Your task to perform on an android device: turn off improve location accuracy Image 0: 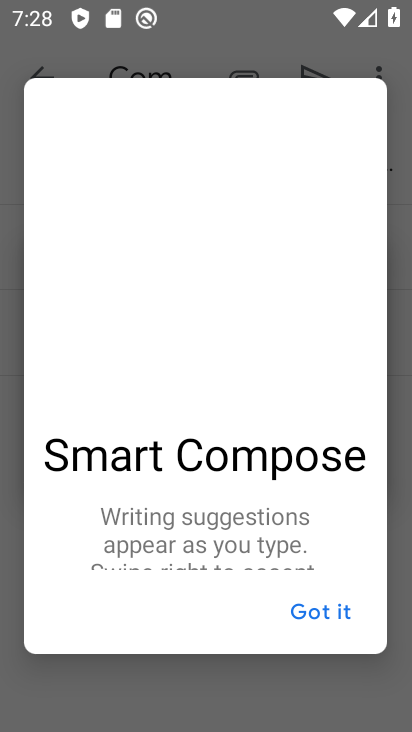
Step 0: press home button
Your task to perform on an android device: turn off improve location accuracy Image 1: 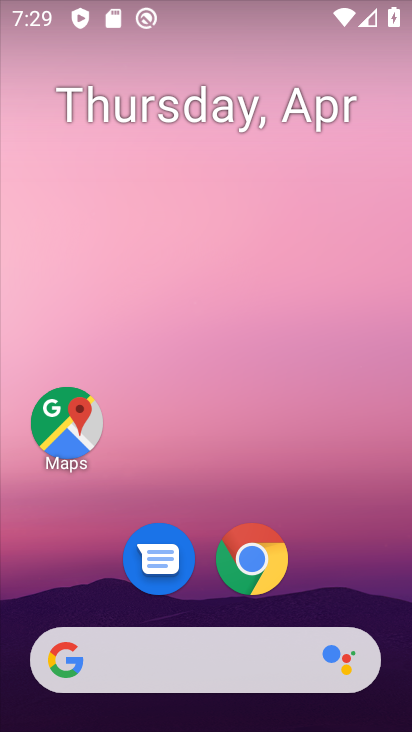
Step 1: drag from (220, 723) to (326, 23)
Your task to perform on an android device: turn off improve location accuracy Image 2: 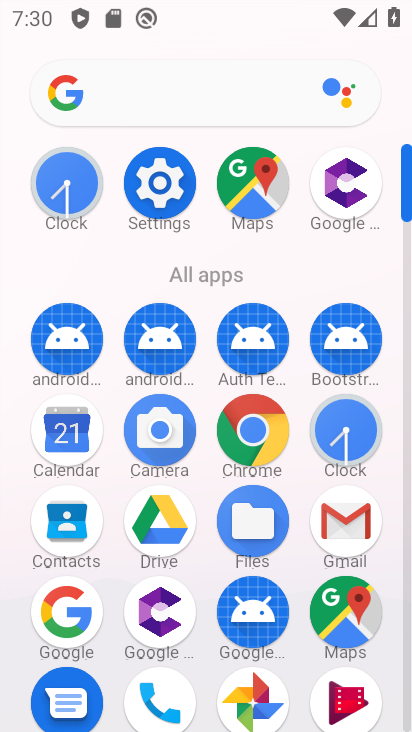
Step 2: click (253, 177)
Your task to perform on an android device: turn off improve location accuracy Image 3: 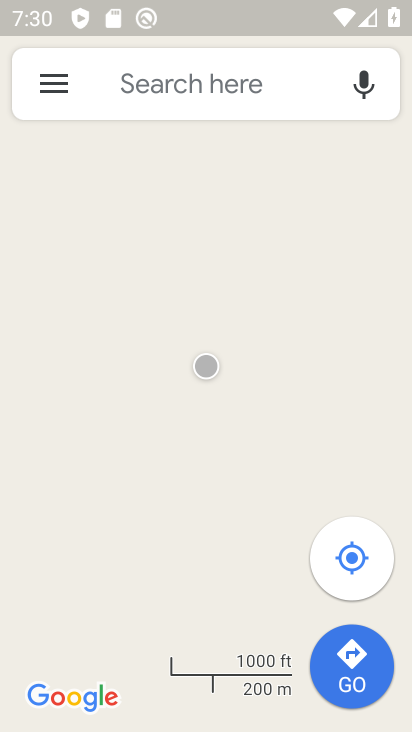
Step 3: click (58, 85)
Your task to perform on an android device: turn off improve location accuracy Image 4: 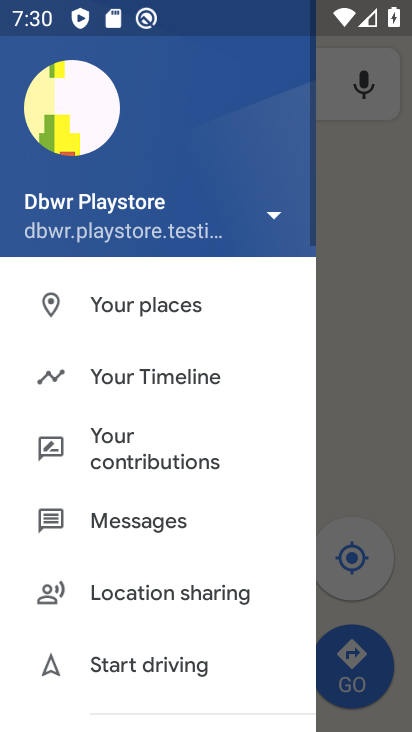
Step 4: drag from (238, 606) to (275, 108)
Your task to perform on an android device: turn off improve location accuracy Image 5: 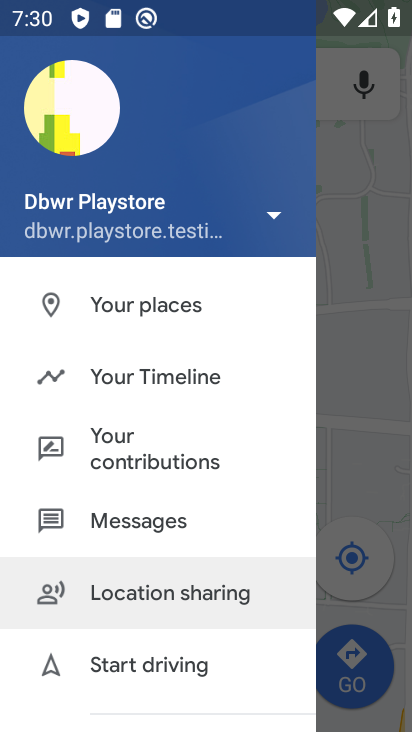
Step 5: drag from (239, 643) to (209, 23)
Your task to perform on an android device: turn off improve location accuracy Image 6: 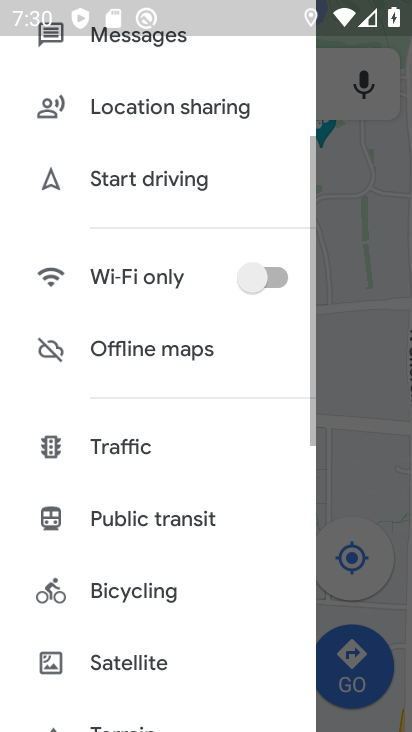
Step 6: drag from (172, 413) to (196, 55)
Your task to perform on an android device: turn off improve location accuracy Image 7: 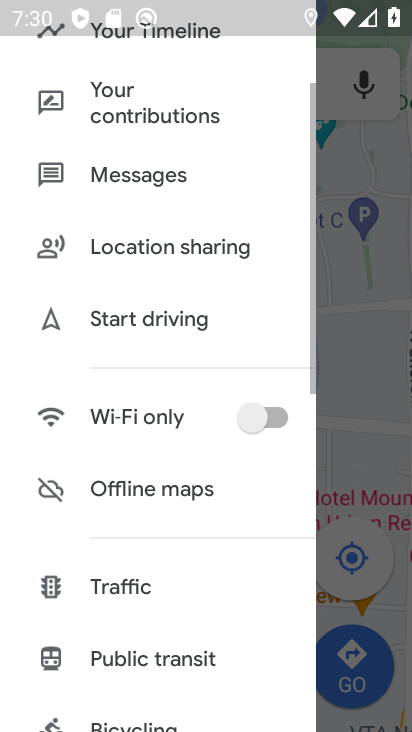
Step 7: drag from (236, 651) to (160, 106)
Your task to perform on an android device: turn off improve location accuracy Image 8: 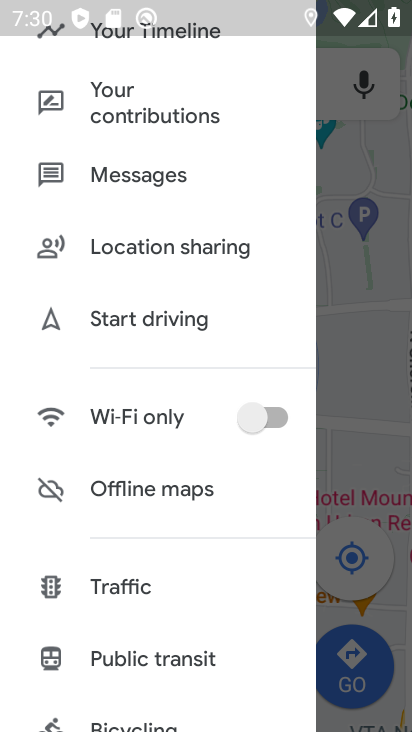
Step 8: drag from (245, 597) to (240, 0)
Your task to perform on an android device: turn off improve location accuracy Image 9: 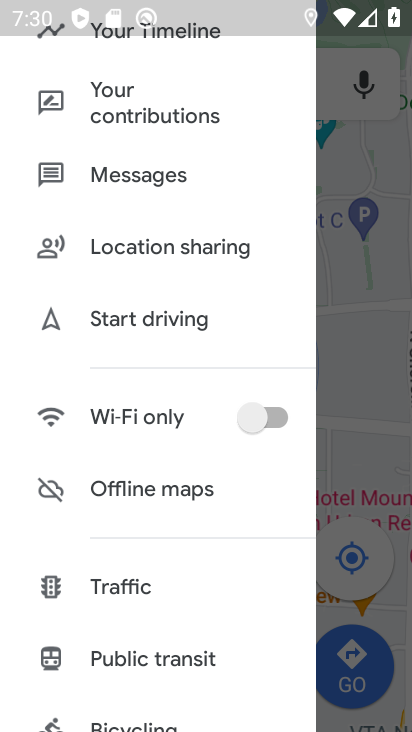
Step 9: drag from (248, 600) to (218, 7)
Your task to perform on an android device: turn off improve location accuracy Image 10: 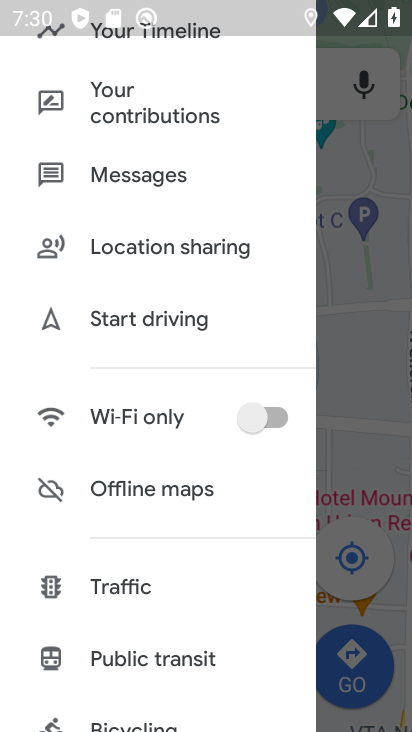
Step 10: drag from (148, 499) to (218, 34)
Your task to perform on an android device: turn off improve location accuracy Image 11: 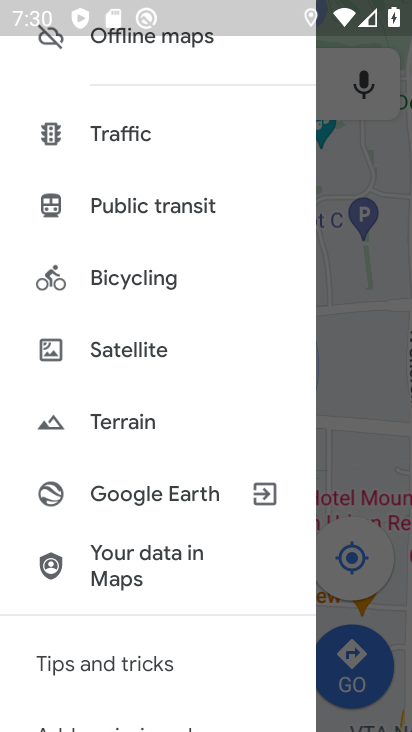
Step 11: drag from (170, 654) to (255, 96)
Your task to perform on an android device: turn off improve location accuracy Image 12: 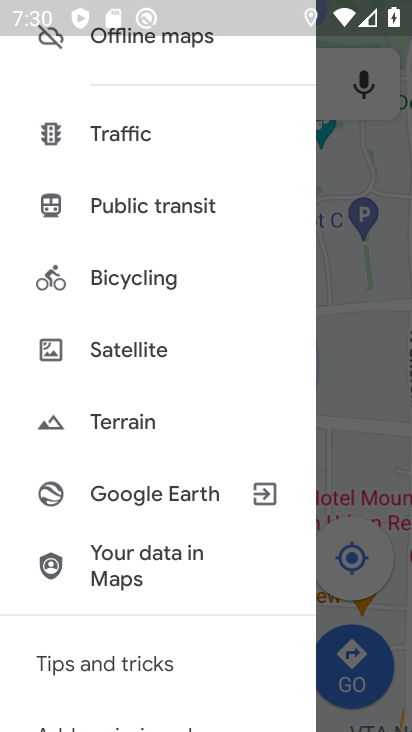
Step 12: drag from (167, 657) to (215, 30)
Your task to perform on an android device: turn off improve location accuracy Image 13: 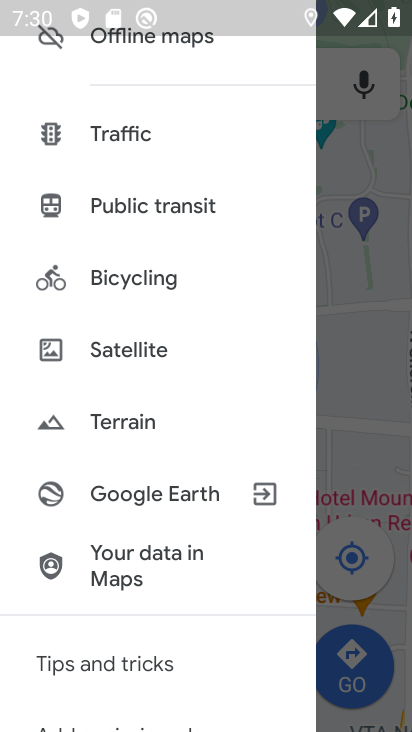
Step 13: drag from (153, 651) to (199, 12)
Your task to perform on an android device: turn off improve location accuracy Image 14: 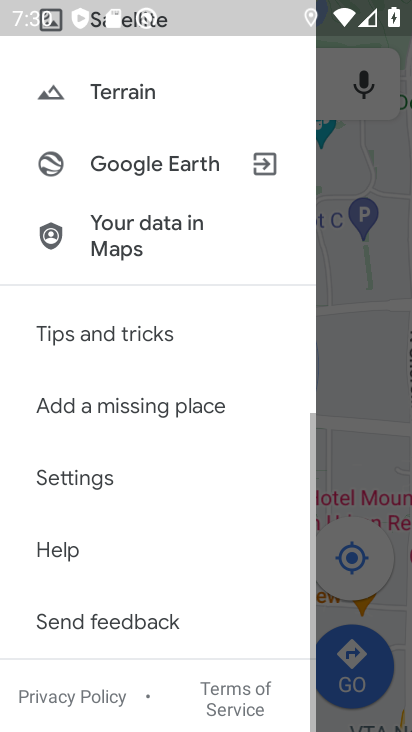
Step 14: click (93, 466)
Your task to perform on an android device: turn off improve location accuracy Image 15: 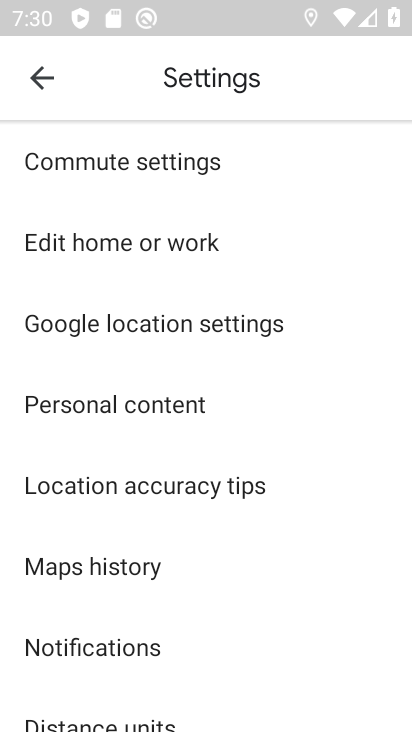
Step 15: click (143, 332)
Your task to perform on an android device: turn off improve location accuracy Image 16: 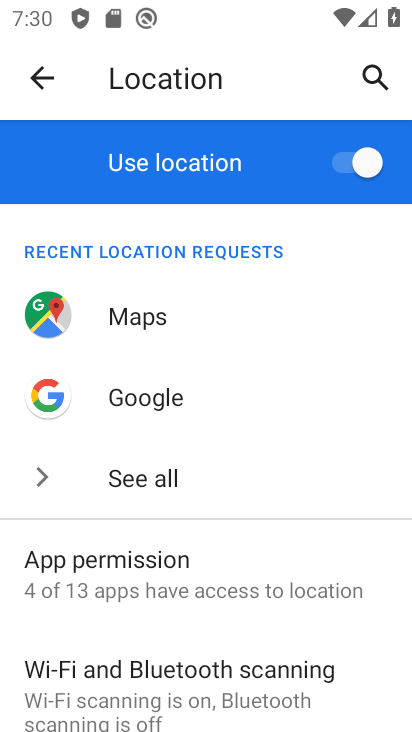
Step 16: drag from (208, 547) to (101, 0)
Your task to perform on an android device: turn off improve location accuracy Image 17: 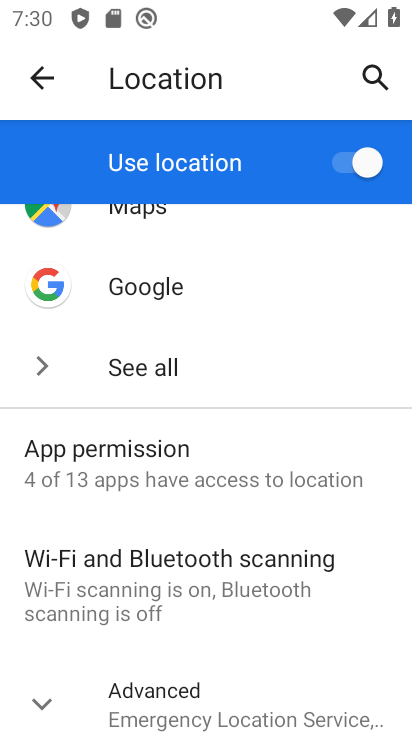
Step 17: click (246, 718)
Your task to perform on an android device: turn off improve location accuracy Image 18: 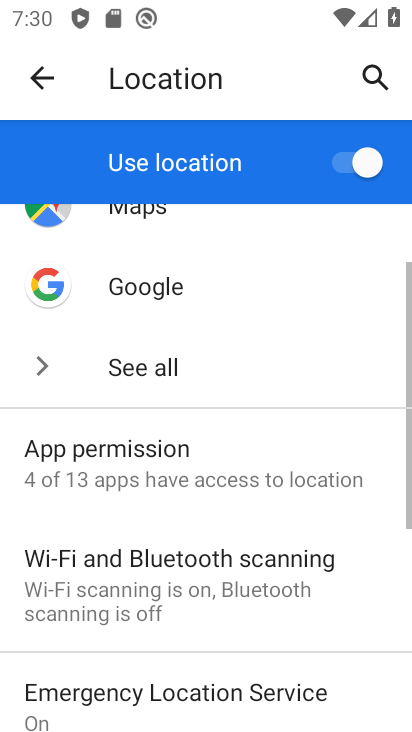
Step 18: drag from (302, 637) to (273, 13)
Your task to perform on an android device: turn off improve location accuracy Image 19: 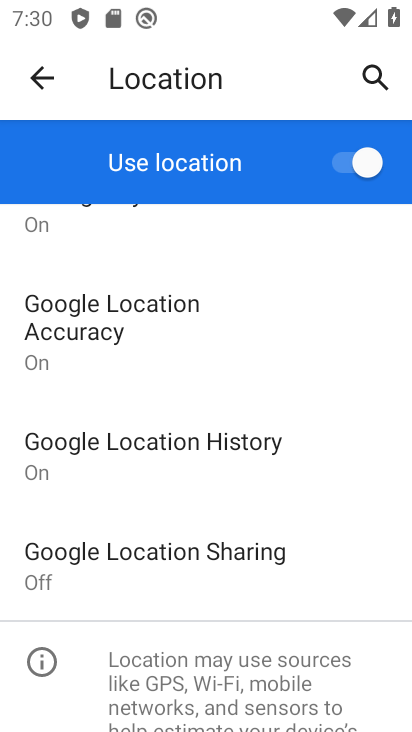
Step 19: click (139, 331)
Your task to perform on an android device: turn off improve location accuracy Image 20: 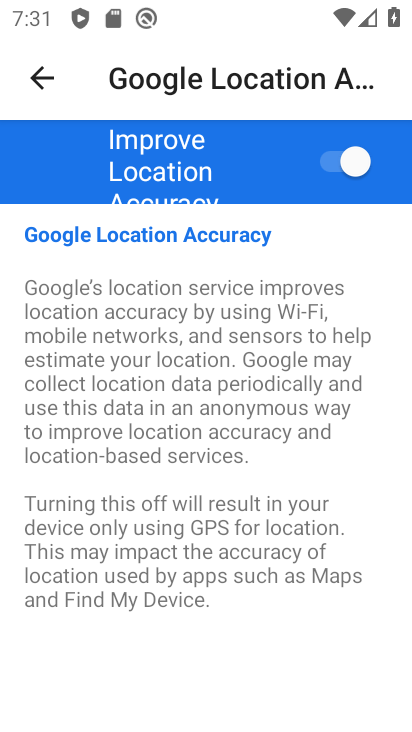
Step 20: click (352, 162)
Your task to perform on an android device: turn off improve location accuracy Image 21: 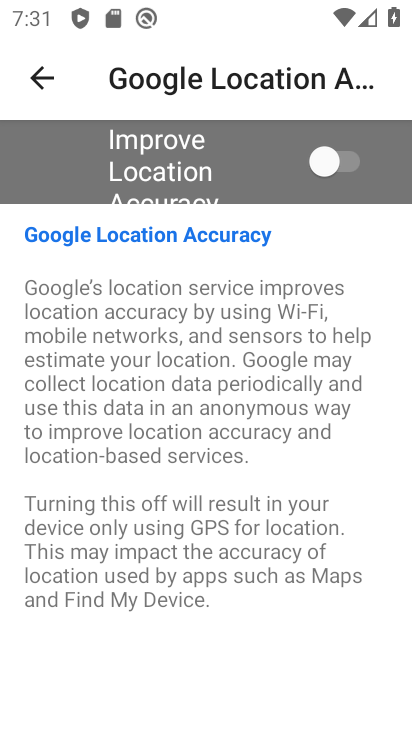
Step 21: task complete